Your task to perform on an android device: check google app version Image 0: 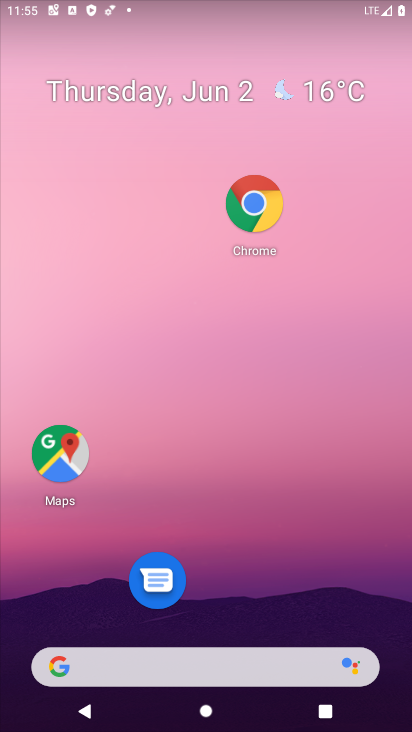
Step 0: click (243, 487)
Your task to perform on an android device: check google app version Image 1: 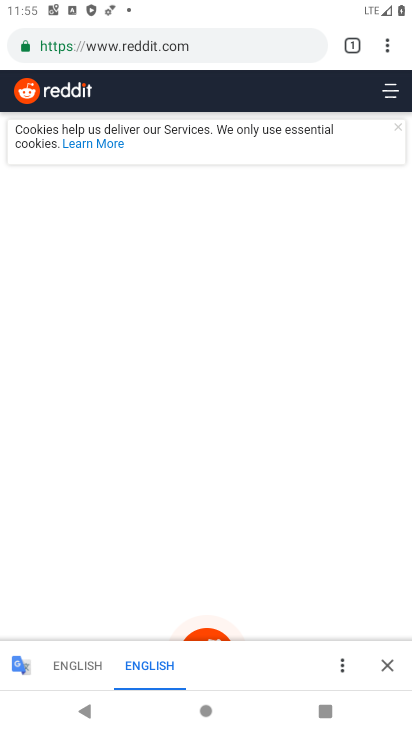
Step 1: press home button
Your task to perform on an android device: check google app version Image 2: 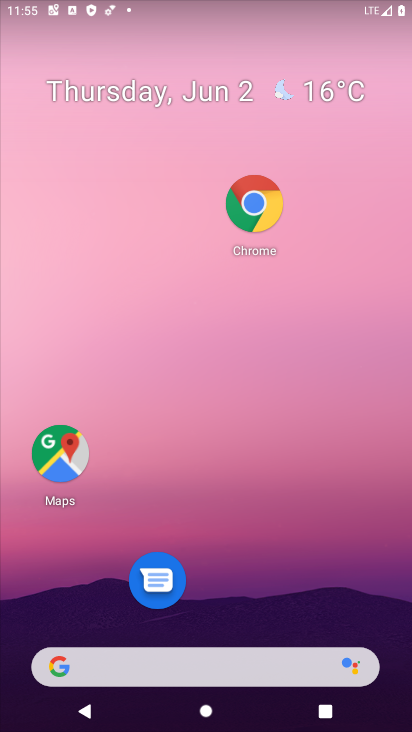
Step 2: drag from (241, 669) to (314, 268)
Your task to perform on an android device: check google app version Image 3: 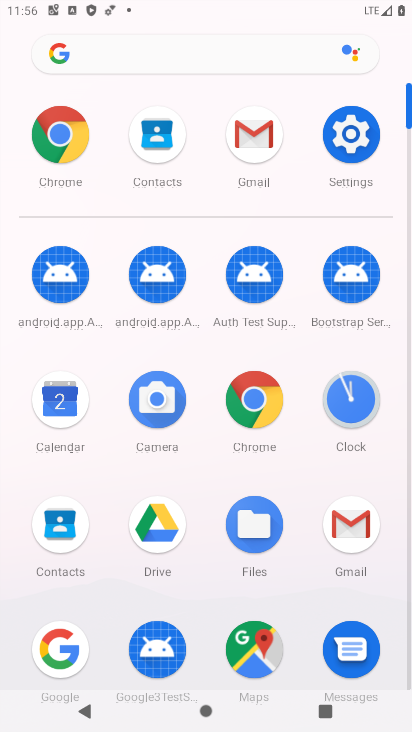
Step 3: click (75, 634)
Your task to perform on an android device: check google app version Image 4: 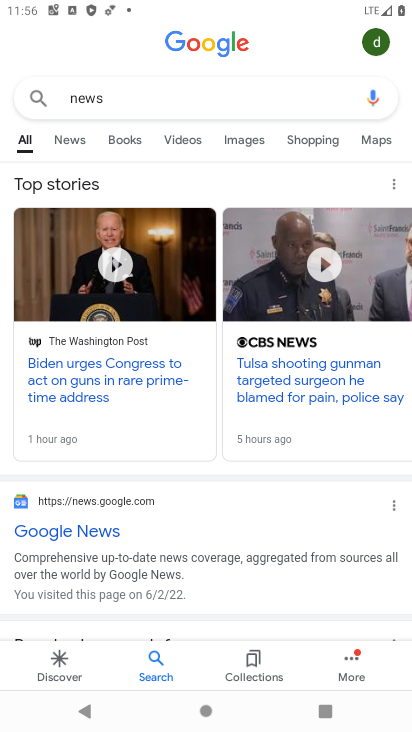
Step 4: click (367, 660)
Your task to perform on an android device: check google app version Image 5: 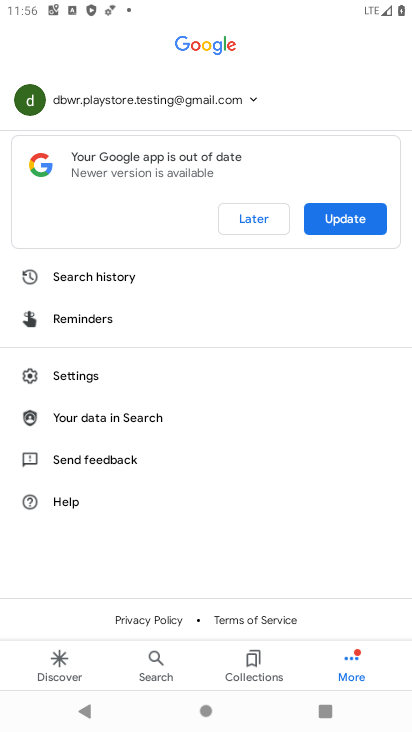
Step 5: click (84, 378)
Your task to perform on an android device: check google app version Image 6: 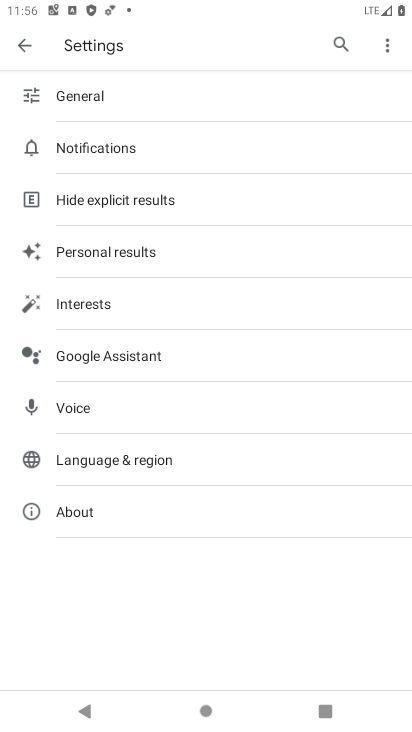
Step 6: click (75, 510)
Your task to perform on an android device: check google app version Image 7: 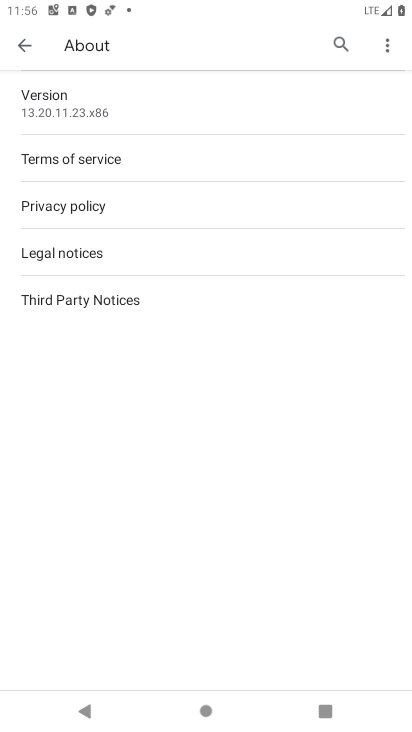
Step 7: task complete